Your task to perform on an android device: Open Google Maps Image 0: 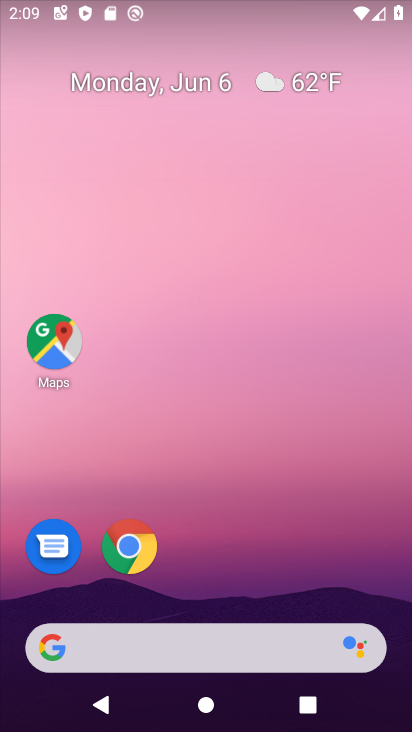
Step 0: press home button
Your task to perform on an android device: Open Google Maps Image 1: 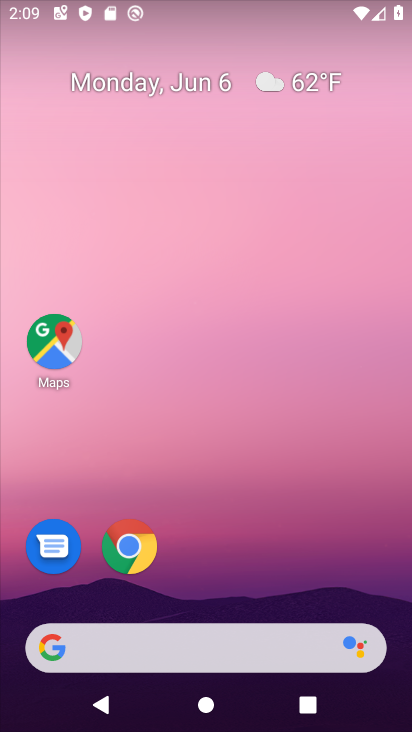
Step 1: click (241, 89)
Your task to perform on an android device: Open Google Maps Image 2: 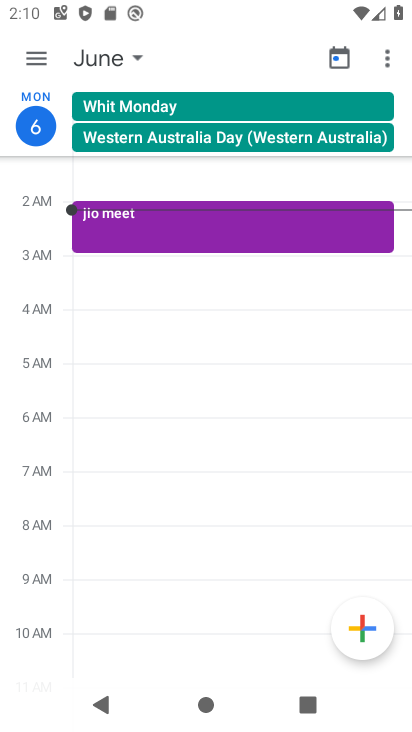
Step 2: press home button
Your task to perform on an android device: Open Google Maps Image 3: 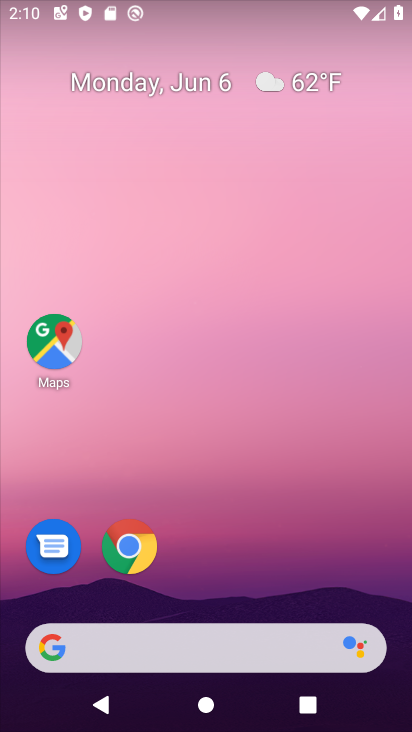
Step 3: click (57, 346)
Your task to perform on an android device: Open Google Maps Image 4: 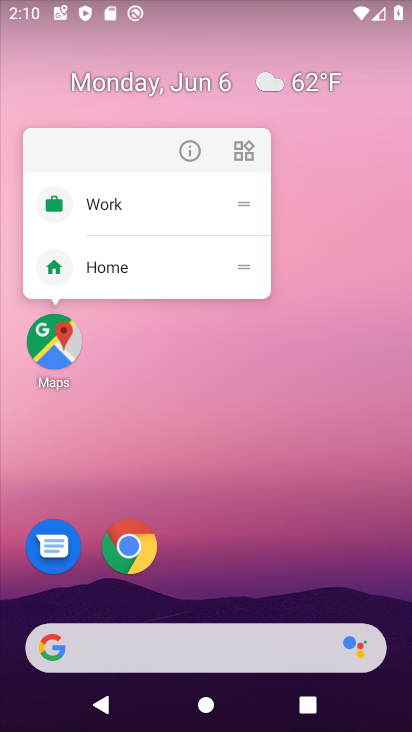
Step 4: click (48, 347)
Your task to perform on an android device: Open Google Maps Image 5: 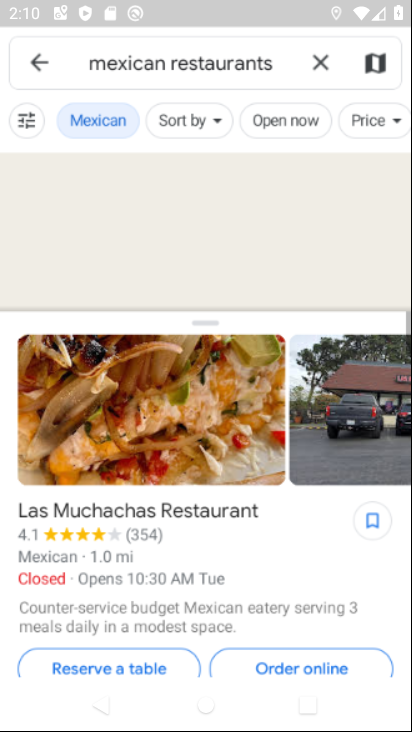
Step 5: task complete